Your task to perform on an android device: see sites visited before in the chrome app Image 0: 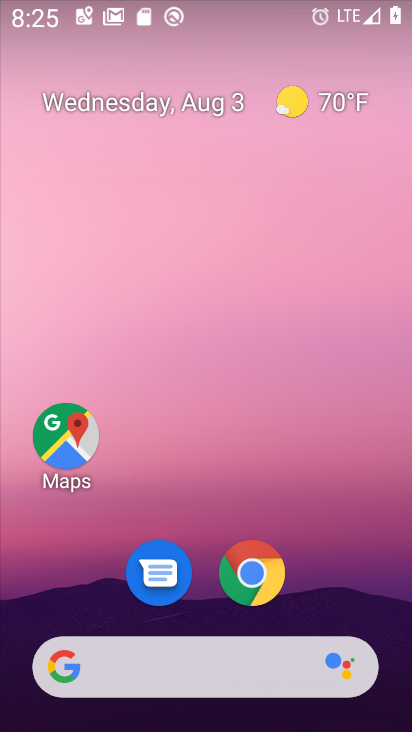
Step 0: click (241, 584)
Your task to perform on an android device: see sites visited before in the chrome app Image 1: 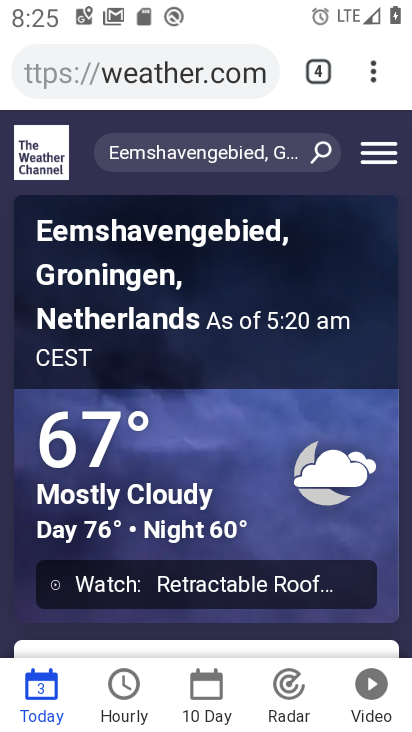
Step 1: click (377, 65)
Your task to perform on an android device: see sites visited before in the chrome app Image 2: 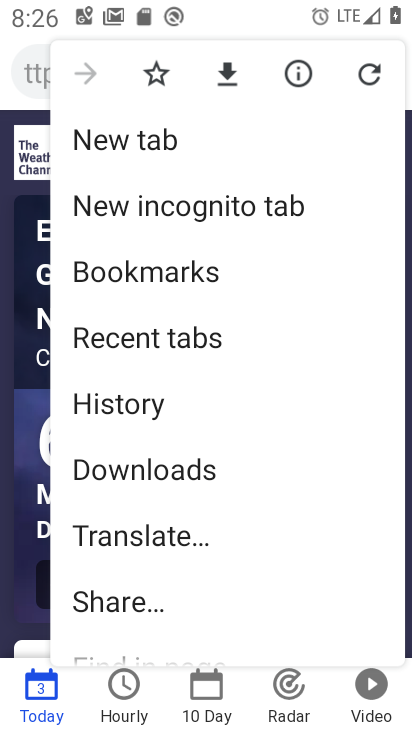
Step 2: click (119, 414)
Your task to perform on an android device: see sites visited before in the chrome app Image 3: 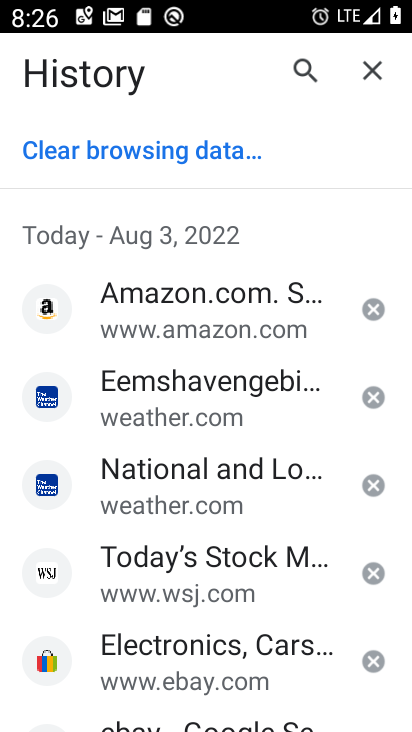
Step 3: task complete